Your task to perform on an android device: Search for "razer blackwidow" on bestbuy, select the first entry, add it to the cart, then select checkout. Image 0: 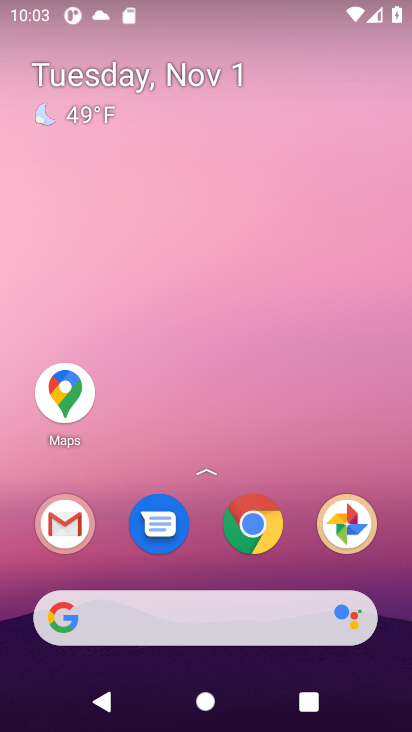
Step 0: click (100, 612)
Your task to perform on an android device: Search for "razer blackwidow" on bestbuy, select the first entry, add it to the cart, then select checkout. Image 1: 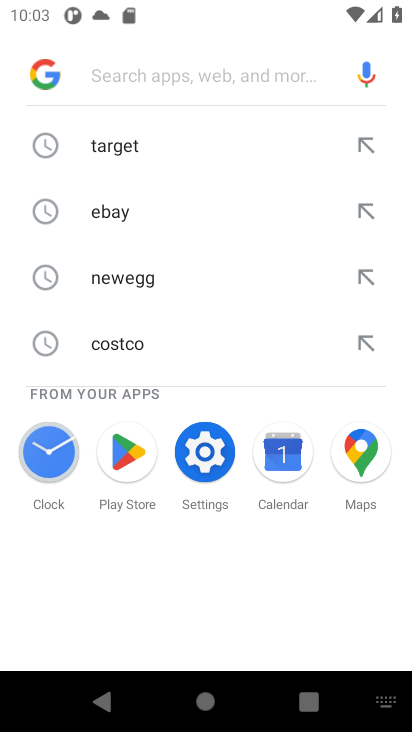
Step 1: type "bestbuy"
Your task to perform on an android device: Search for "razer blackwidow" on bestbuy, select the first entry, add it to the cart, then select checkout. Image 2: 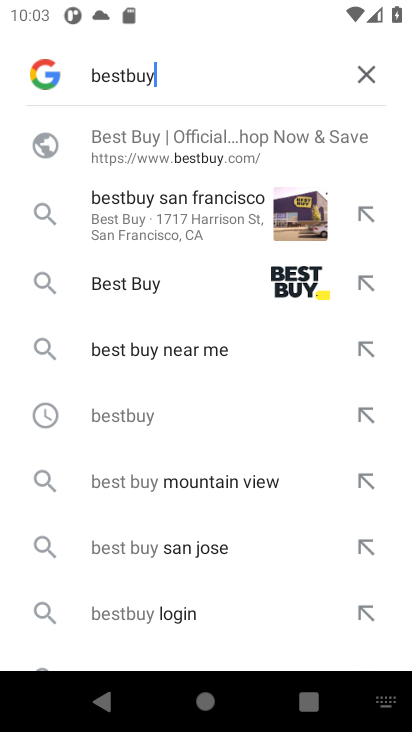
Step 2: press enter
Your task to perform on an android device: Search for "razer blackwidow" on bestbuy, select the first entry, add it to the cart, then select checkout. Image 3: 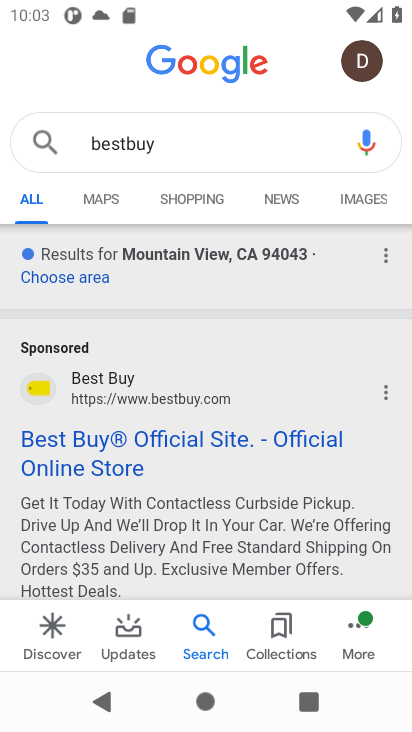
Step 3: click (105, 442)
Your task to perform on an android device: Search for "razer blackwidow" on bestbuy, select the first entry, add it to the cart, then select checkout. Image 4: 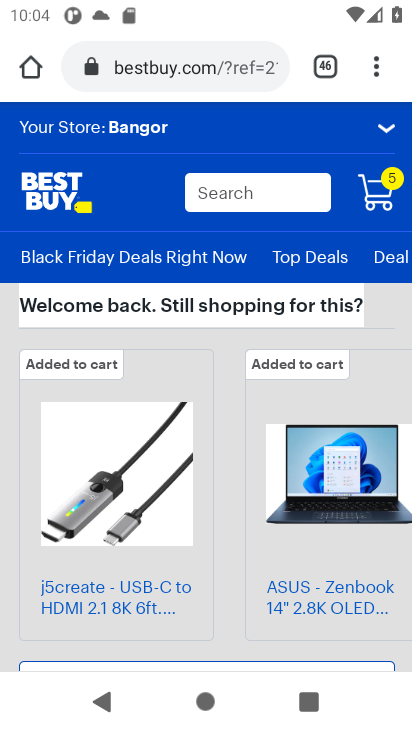
Step 4: click (212, 191)
Your task to perform on an android device: Search for "razer blackwidow" on bestbuy, select the first entry, add it to the cart, then select checkout. Image 5: 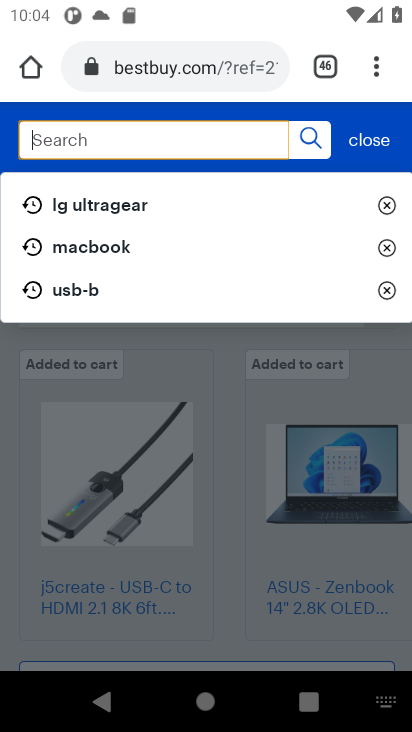
Step 5: type "razer blackwidow"
Your task to perform on an android device: Search for "razer blackwidow" on bestbuy, select the first entry, add it to the cart, then select checkout. Image 6: 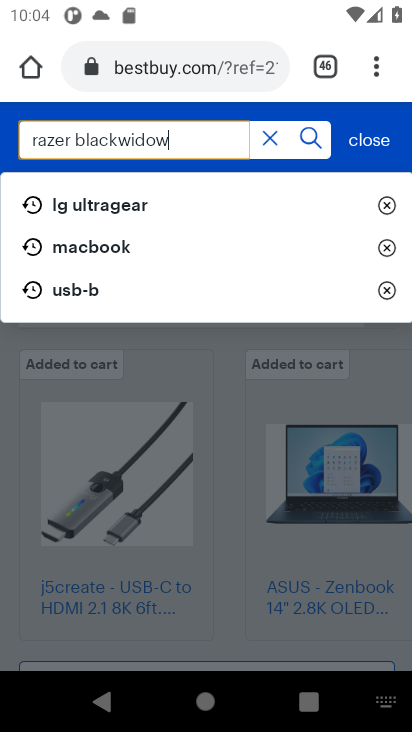
Step 6: press enter
Your task to perform on an android device: Search for "razer blackwidow" on bestbuy, select the first entry, add it to the cart, then select checkout. Image 7: 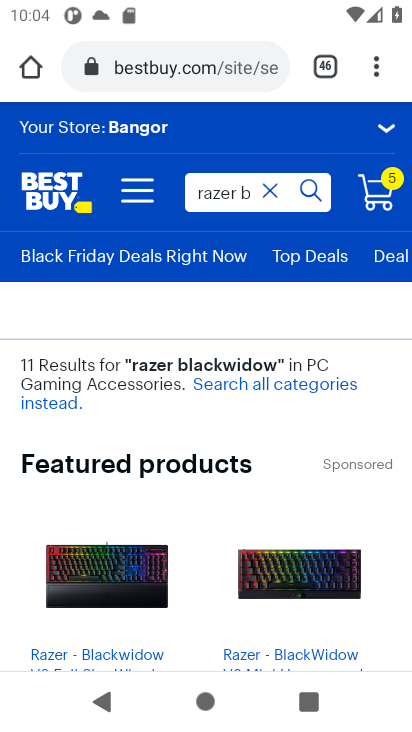
Step 7: drag from (210, 536) to (192, 250)
Your task to perform on an android device: Search for "razer blackwidow" on bestbuy, select the first entry, add it to the cart, then select checkout. Image 8: 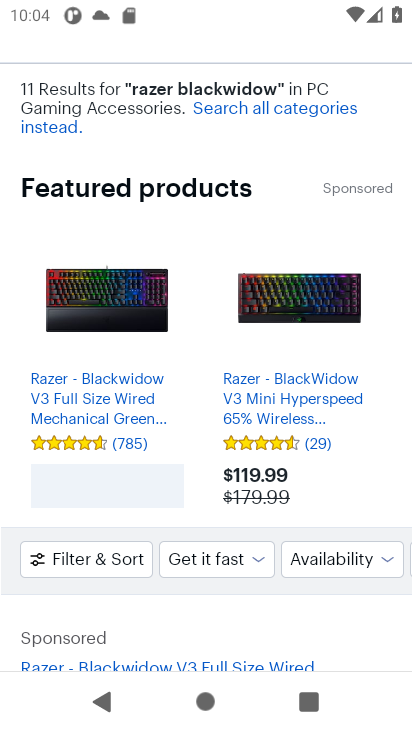
Step 8: click (84, 398)
Your task to perform on an android device: Search for "razer blackwidow" on bestbuy, select the first entry, add it to the cart, then select checkout. Image 9: 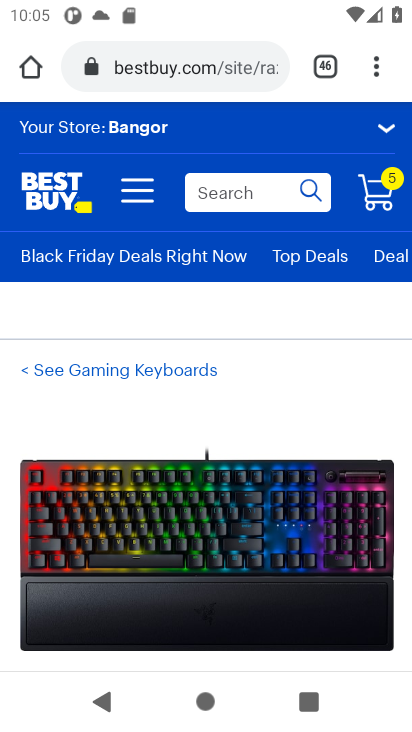
Step 9: drag from (224, 561) to (224, 215)
Your task to perform on an android device: Search for "razer blackwidow" on bestbuy, select the first entry, add it to the cart, then select checkout. Image 10: 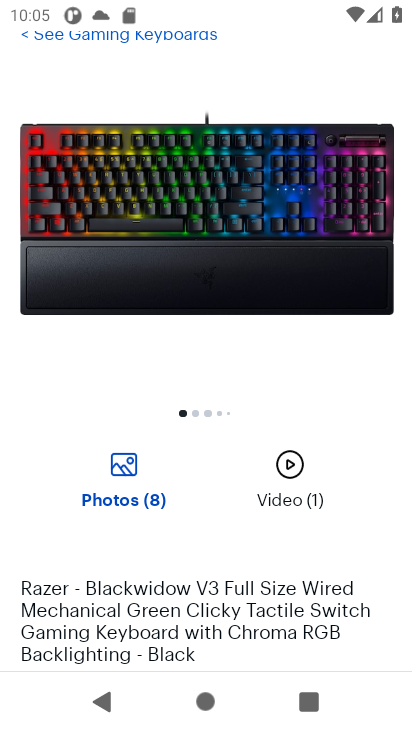
Step 10: drag from (182, 580) to (196, 172)
Your task to perform on an android device: Search for "razer blackwidow" on bestbuy, select the first entry, add it to the cart, then select checkout. Image 11: 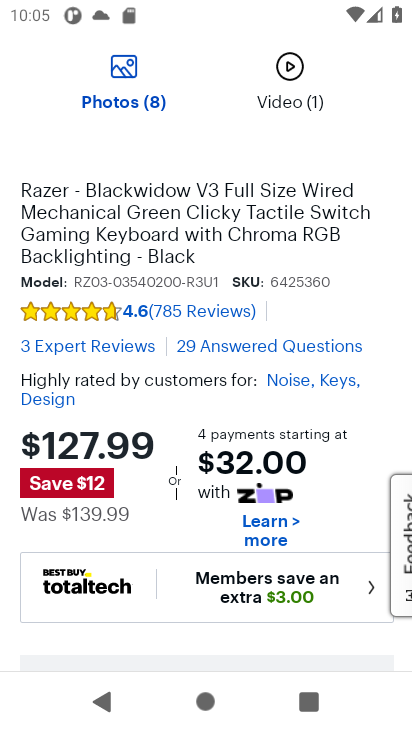
Step 11: drag from (176, 560) to (186, 163)
Your task to perform on an android device: Search for "razer blackwidow" on bestbuy, select the first entry, add it to the cart, then select checkout. Image 12: 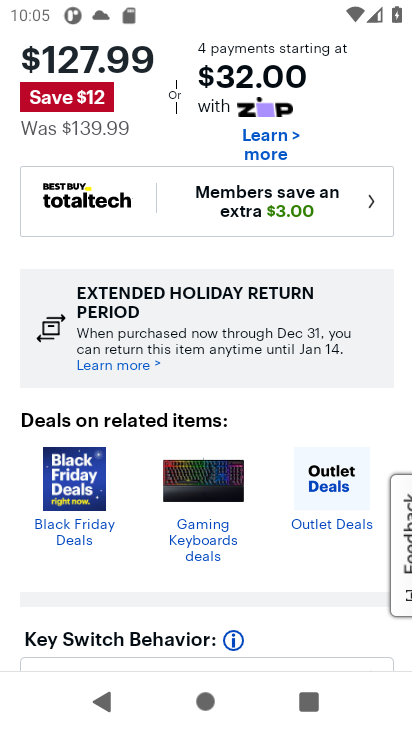
Step 12: drag from (206, 547) to (206, 156)
Your task to perform on an android device: Search for "razer blackwidow" on bestbuy, select the first entry, add it to the cart, then select checkout. Image 13: 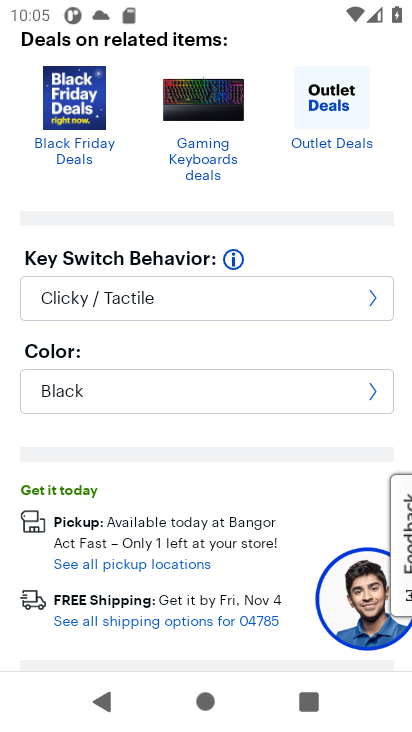
Step 13: drag from (168, 566) to (181, 210)
Your task to perform on an android device: Search for "razer blackwidow" on bestbuy, select the first entry, add it to the cart, then select checkout. Image 14: 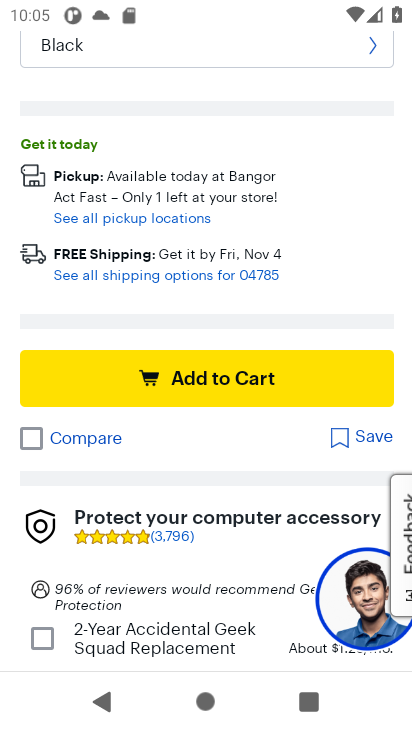
Step 14: click (197, 379)
Your task to perform on an android device: Search for "razer blackwidow" on bestbuy, select the first entry, add it to the cart, then select checkout. Image 15: 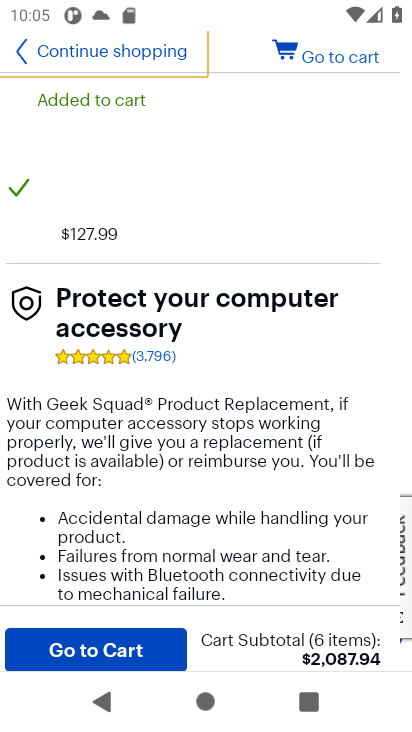
Step 15: drag from (275, 521) to (275, 244)
Your task to perform on an android device: Search for "razer blackwidow" on bestbuy, select the first entry, add it to the cart, then select checkout. Image 16: 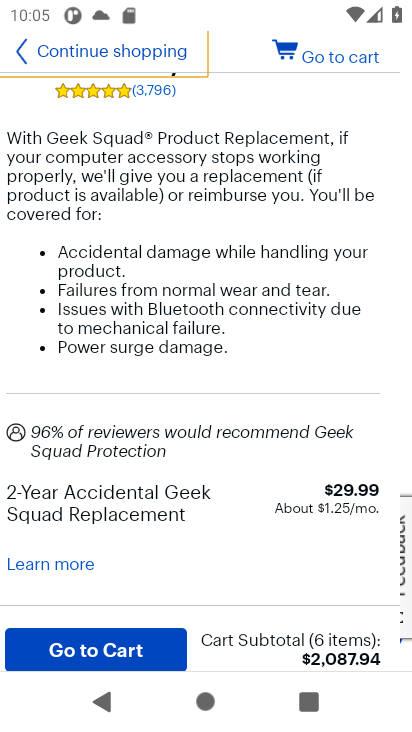
Step 16: click (88, 656)
Your task to perform on an android device: Search for "razer blackwidow" on bestbuy, select the first entry, add it to the cart, then select checkout. Image 17: 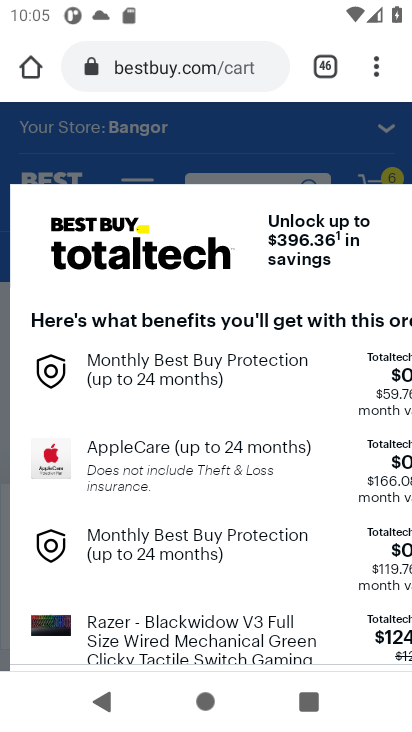
Step 17: drag from (183, 522) to (186, 111)
Your task to perform on an android device: Search for "razer blackwidow" on bestbuy, select the first entry, add it to the cart, then select checkout. Image 18: 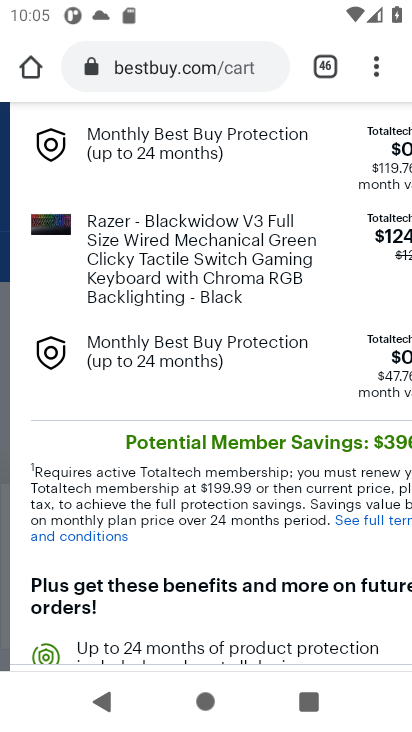
Step 18: drag from (183, 585) to (188, 108)
Your task to perform on an android device: Search for "razer blackwidow" on bestbuy, select the first entry, add it to the cart, then select checkout. Image 19: 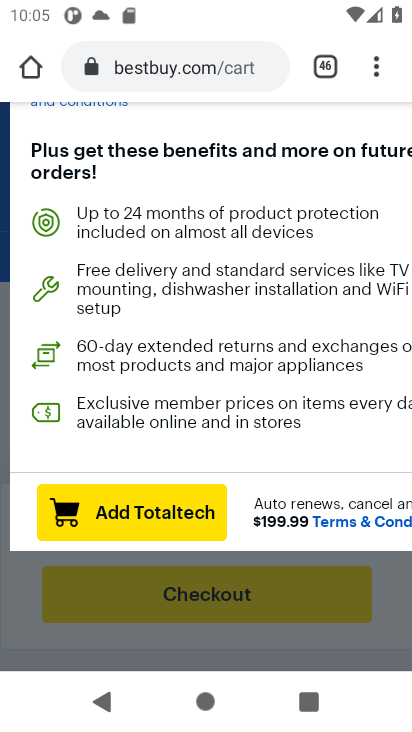
Step 19: click (184, 605)
Your task to perform on an android device: Search for "razer blackwidow" on bestbuy, select the first entry, add it to the cart, then select checkout. Image 20: 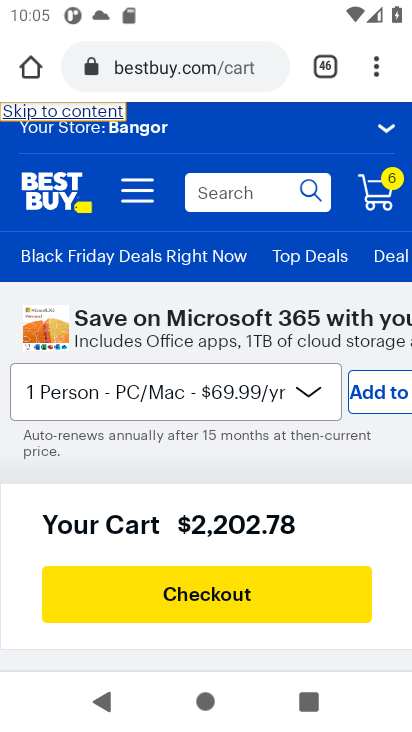
Step 20: click (193, 599)
Your task to perform on an android device: Search for "razer blackwidow" on bestbuy, select the first entry, add it to the cart, then select checkout. Image 21: 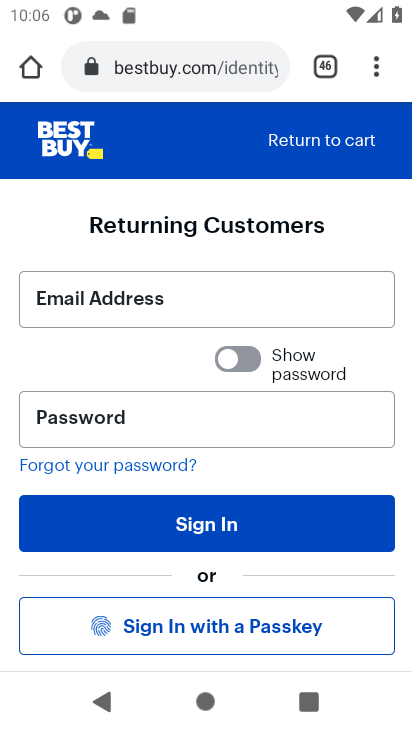
Step 21: task complete